Your task to perform on an android device: toggle wifi Image 0: 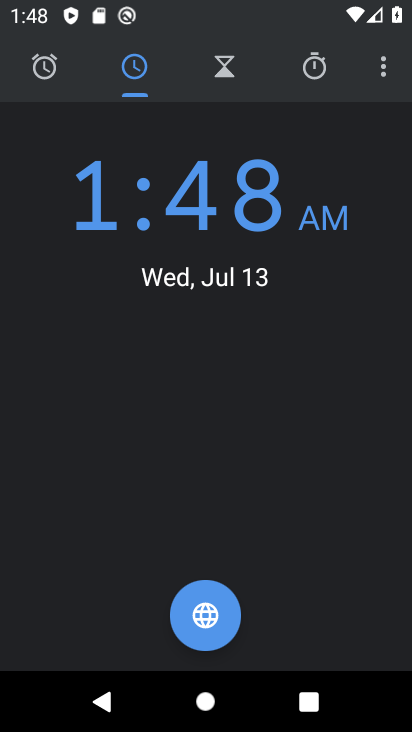
Step 0: press home button
Your task to perform on an android device: toggle wifi Image 1: 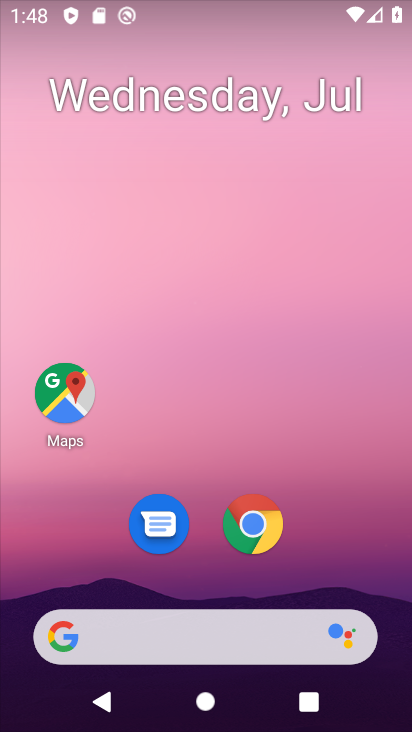
Step 1: drag from (336, 526) to (353, 52)
Your task to perform on an android device: toggle wifi Image 2: 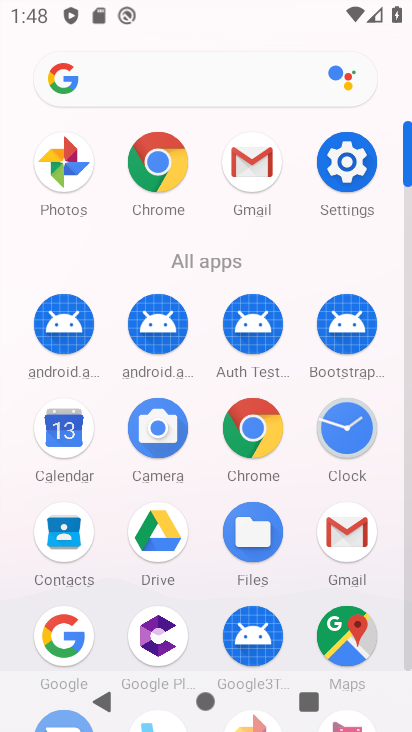
Step 2: click (341, 171)
Your task to perform on an android device: toggle wifi Image 3: 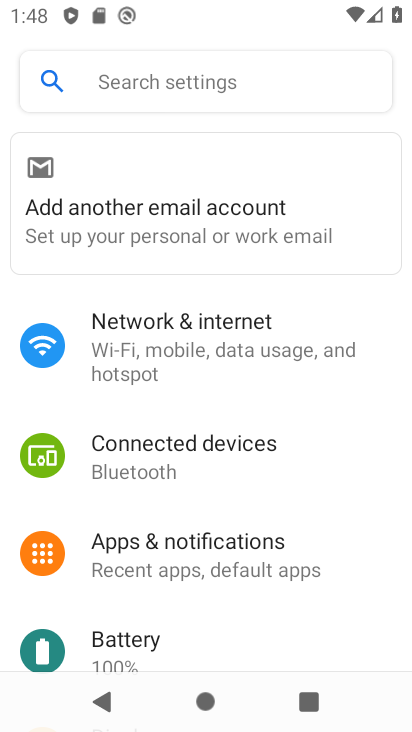
Step 3: click (237, 324)
Your task to perform on an android device: toggle wifi Image 4: 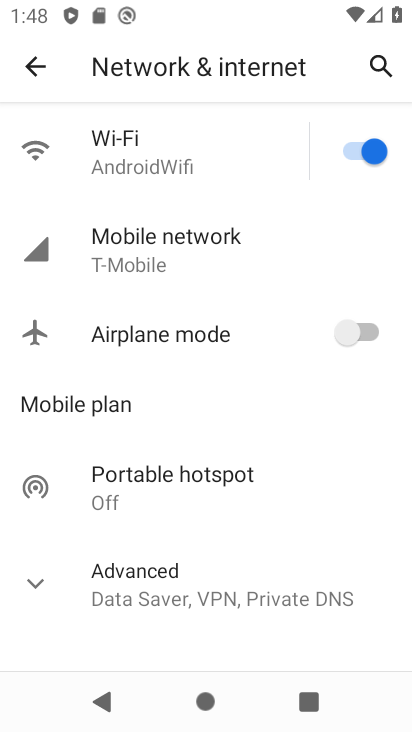
Step 4: click (359, 145)
Your task to perform on an android device: toggle wifi Image 5: 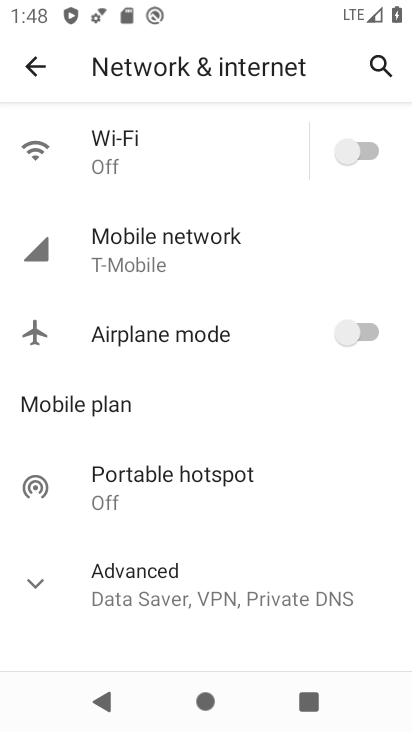
Step 5: task complete